Your task to perform on an android device: Open sound settings Image 0: 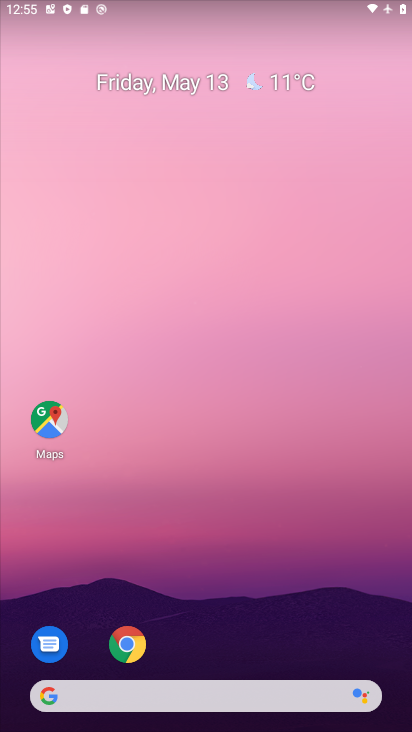
Step 0: drag from (210, 725) to (211, 197)
Your task to perform on an android device: Open sound settings Image 1: 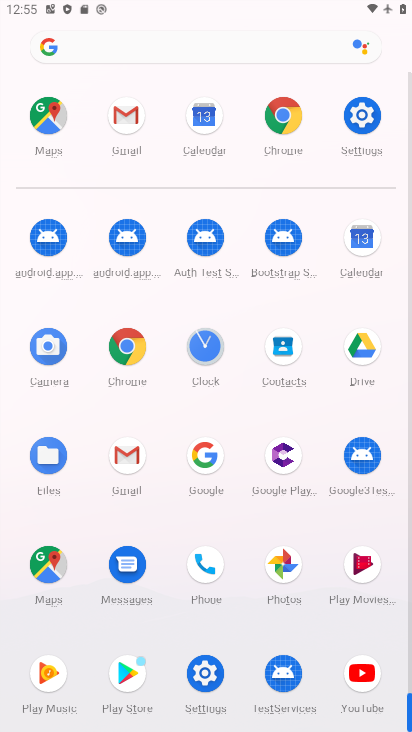
Step 1: click (358, 108)
Your task to perform on an android device: Open sound settings Image 2: 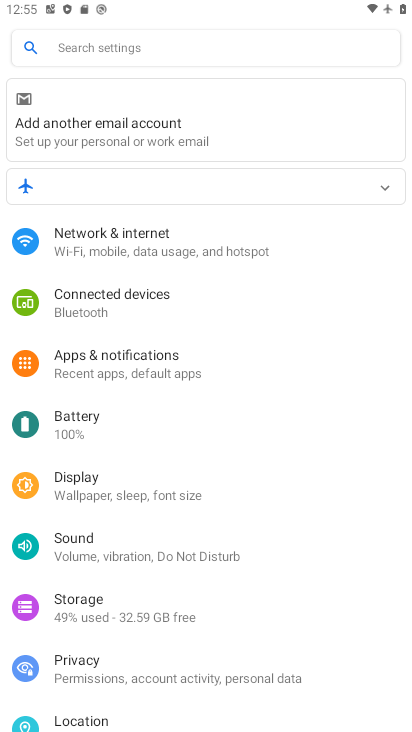
Step 2: click (122, 552)
Your task to perform on an android device: Open sound settings Image 3: 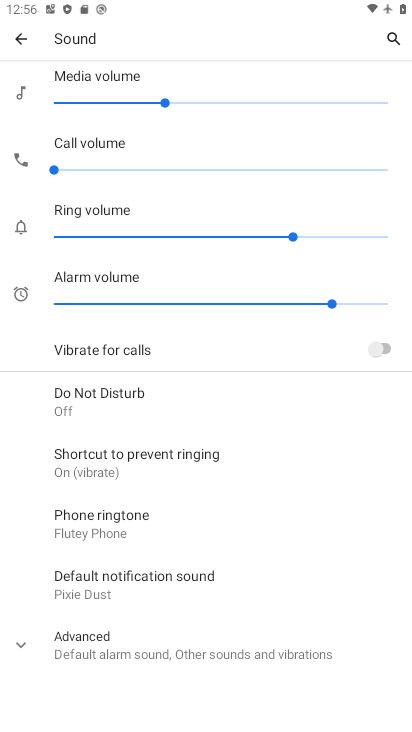
Step 3: task complete